Your task to perform on an android device: turn on airplane mode Image 0: 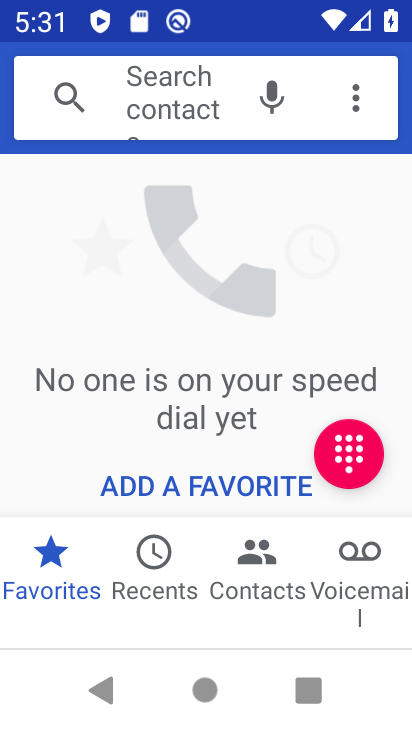
Step 0: press home button
Your task to perform on an android device: turn on airplane mode Image 1: 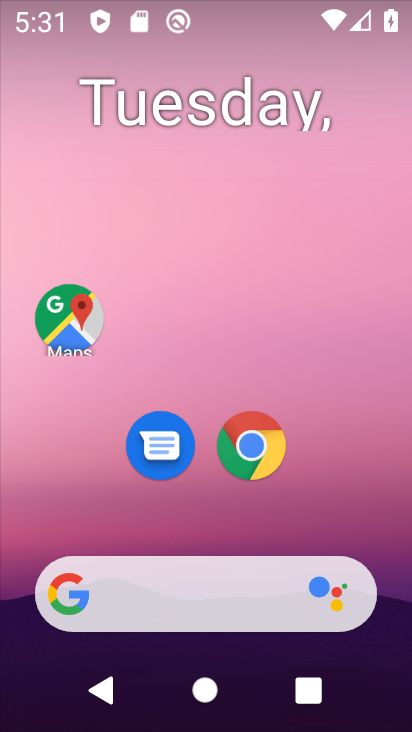
Step 1: drag from (277, 5) to (271, 591)
Your task to perform on an android device: turn on airplane mode Image 2: 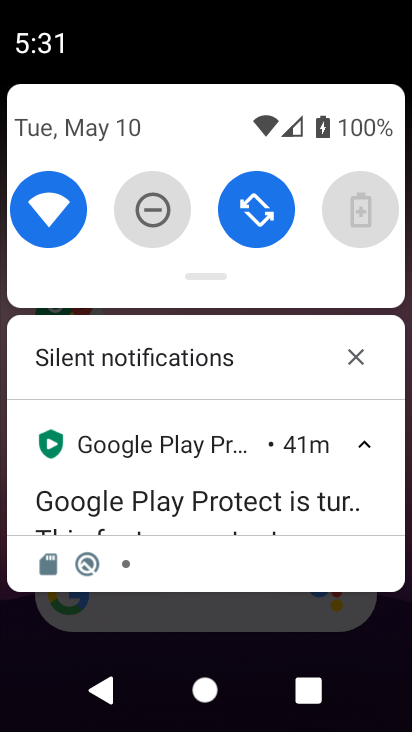
Step 2: drag from (318, 251) to (301, 611)
Your task to perform on an android device: turn on airplane mode Image 3: 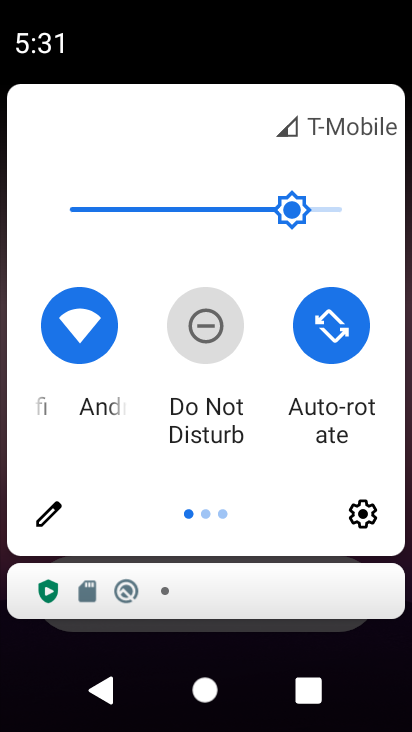
Step 3: drag from (390, 307) to (18, 259)
Your task to perform on an android device: turn on airplane mode Image 4: 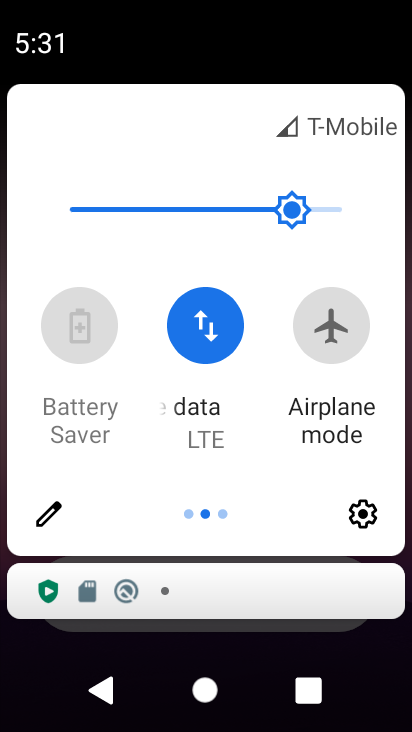
Step 4: click (335, 326)
Your task to perform on an android device: turn on airplane mode Image 5: 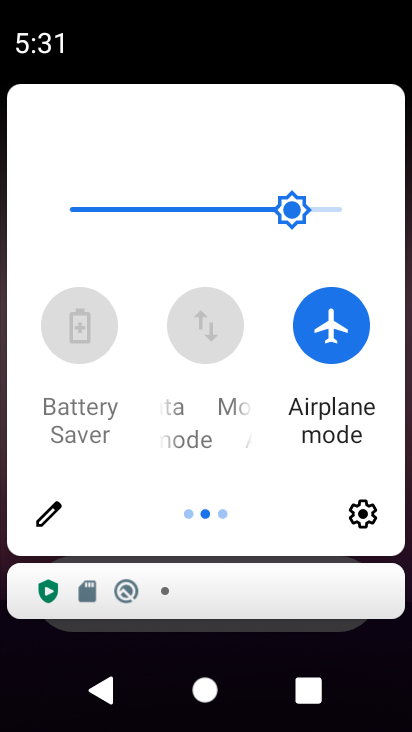
Step 5: click (386, 654)
Your task to perform on an android device: turn on airplane mode Image 6: 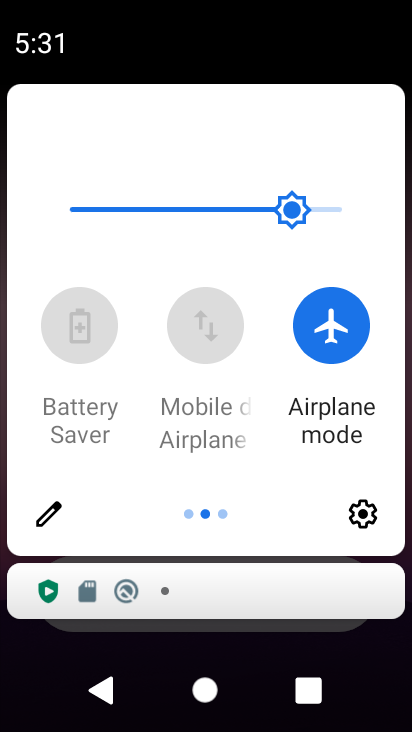
Step 6: task complete